Your task to perform on an android device: open sync settings in chrome Image 0: 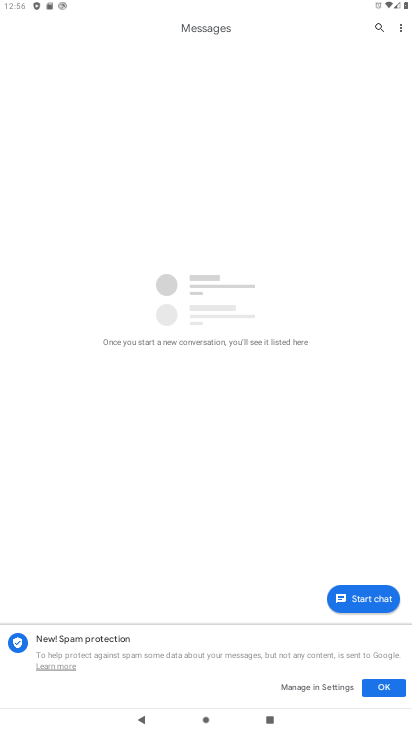
Step 0: press home button
Your task to perform on an android device: open sync settings in chrome Image 1: 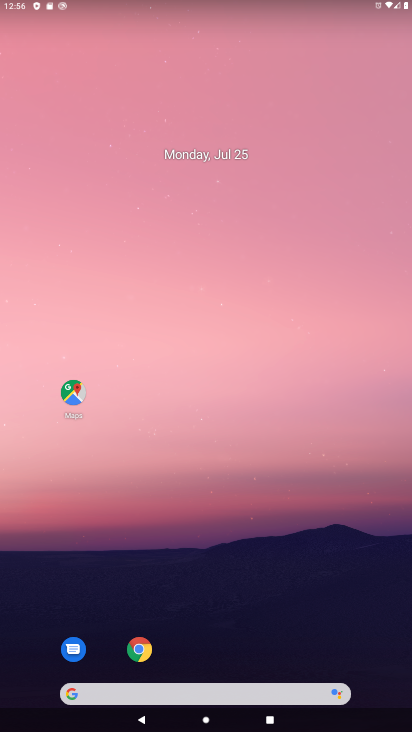
Step 1: click (137, 647)
Your task to perform on an android device: open sync settings in chrome Image 2: 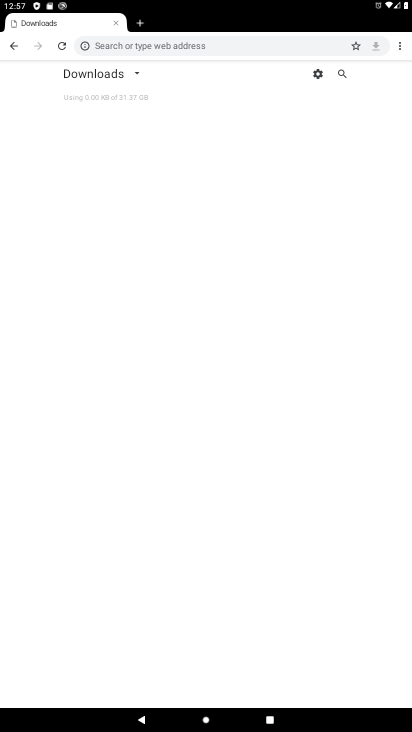
Step 2: drag from (396, 43) to (314, 208)
Your task to perform on an android device: open sync settings in chrome Image 3: 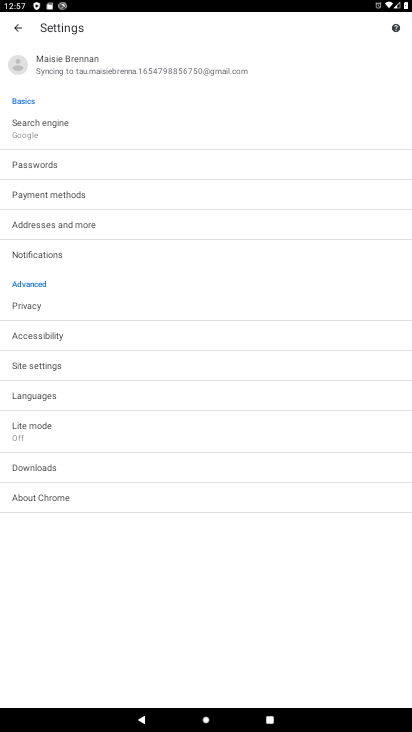
Step 3: click (69, 366)
Your task to perform on an android device: open sync settings in chrome Image 4: 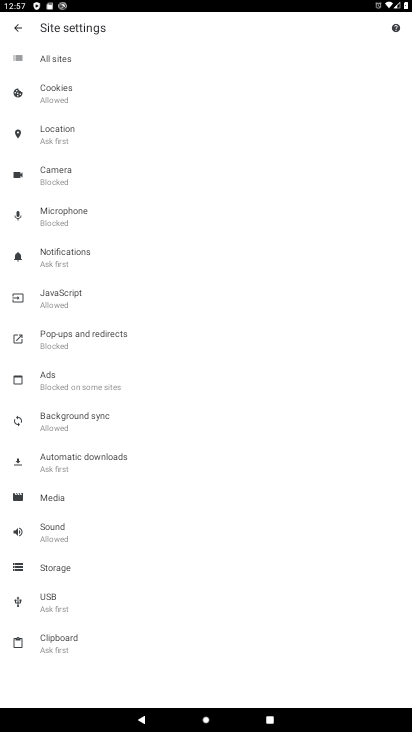
Step 4: click (93, 421)
Your task to perform on an android device: open sync settings in chrome Image 5: 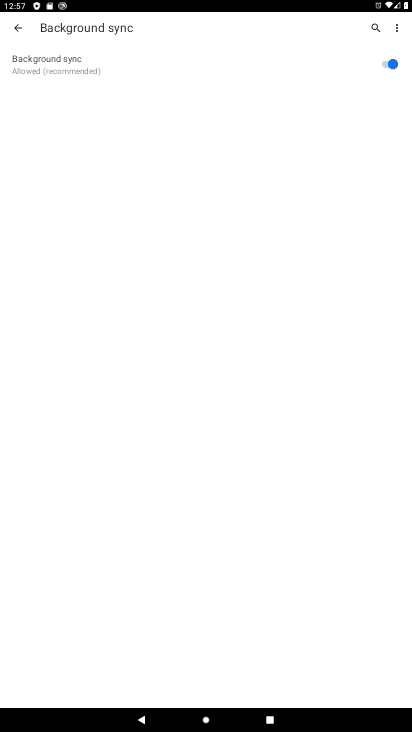
Step 5: task complete